Your task to perform on an android device: Open the stopwatch Image 0: 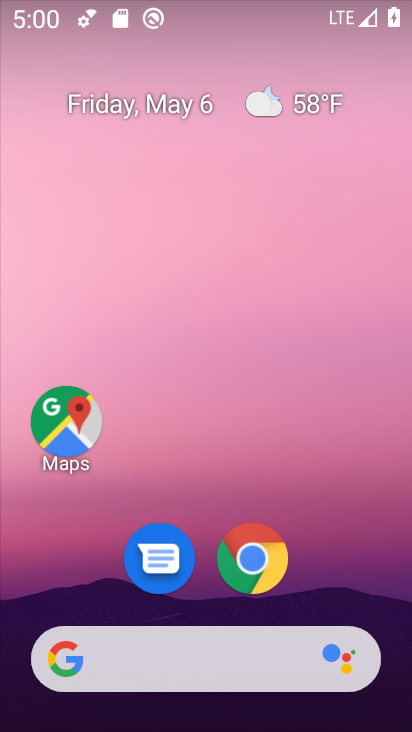
Step 0: drag from (308, 617) to (394, 129)
Your task to perform on an android device: Open the stopwatch Image 1: 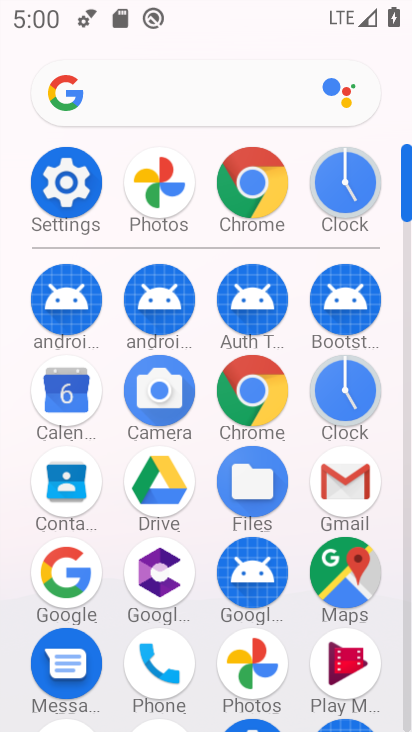
Step 1: click (348, 405)
Your task to perform on an android device: Open the stopwatch Image 2: 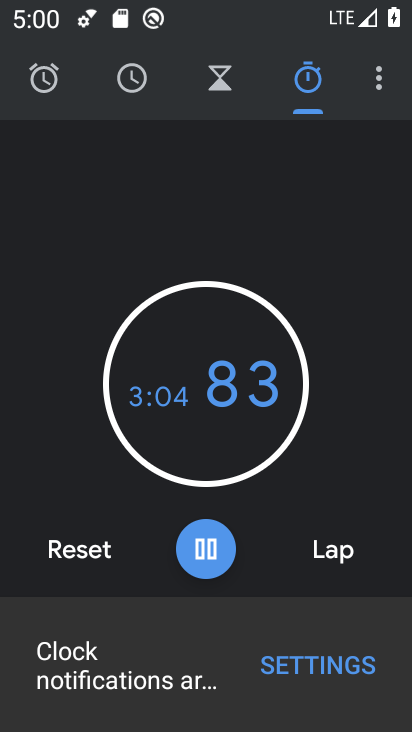
Step 2: click (52, 546)
Your task to perform on an android device: Open the stopwatch Image 3: 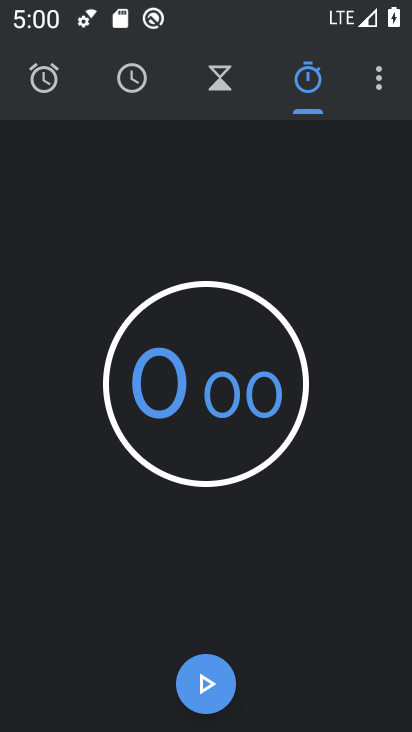
Step 3: click (199, 676)
Your task to perform on an android device: Open the stopwatch Image 4: 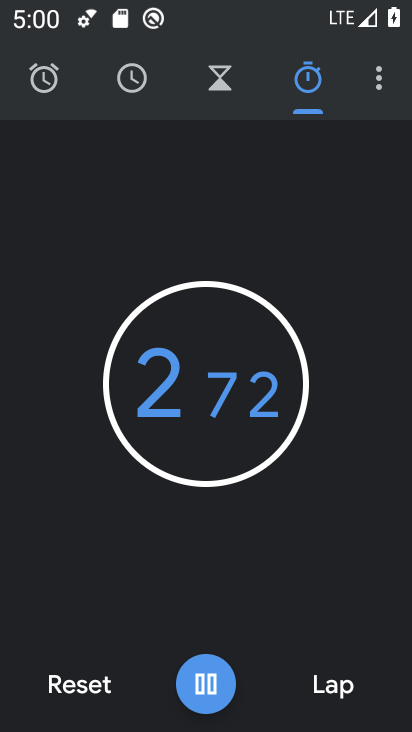
Step 4: task complete